Your task to perform on an android device: Go to privacy settings Image 0: 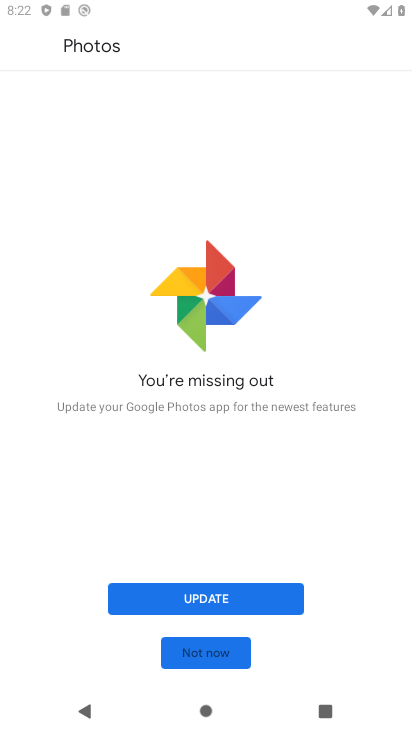
Step 0: press home button
Your task to perform on an android device: Go to privacy settings Image 1: 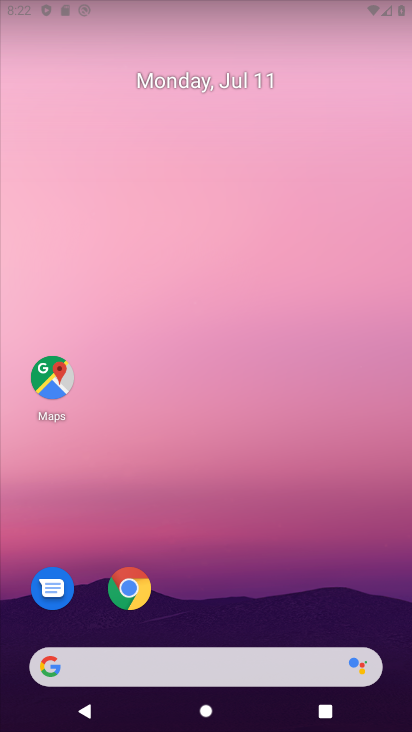
Step 1: drag from (247, 708) to (264, 23)
Your task to perform on an android device: Go to privacy settings Image 2: 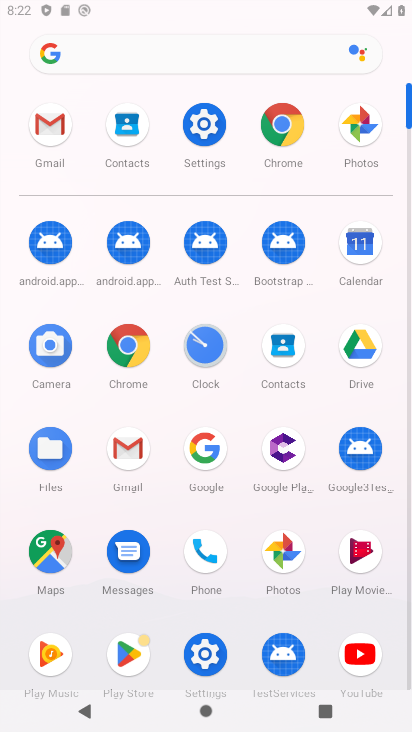
Step 2: click (192, 123)
Your task to perform on an android device: Go to privacy settings Image 3: 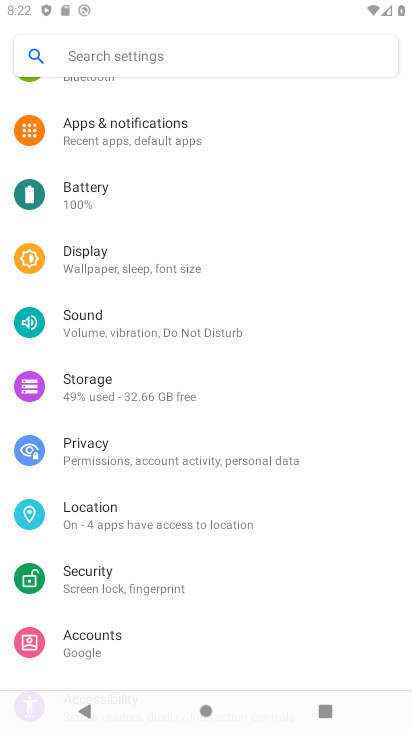
Step 3: drag from (190, 600) to (251, 233)
Your task to perform on an android device: Go to privacy settings Image 4: 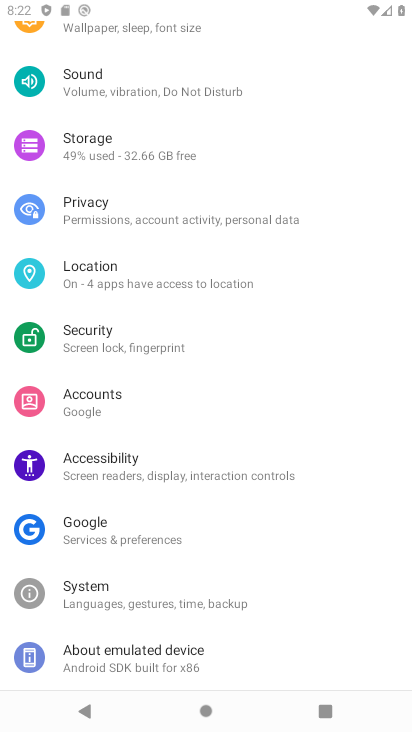
Step 4: click (197, 203)
Your task to perform on an android device: Go to privacy settings Image 5: 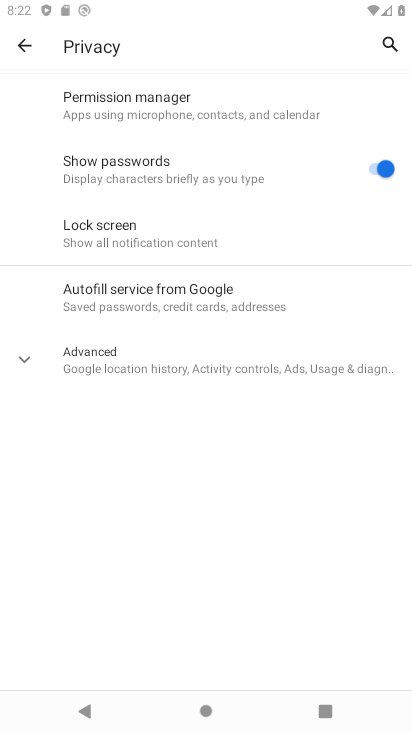
Step 5: task complete